Your task to perform on an android device: Clear all items from cart on ebay.com. Search for razer huntsman on ebay.com, select the first entry, add it to the cart, then select checkout. Image 0: 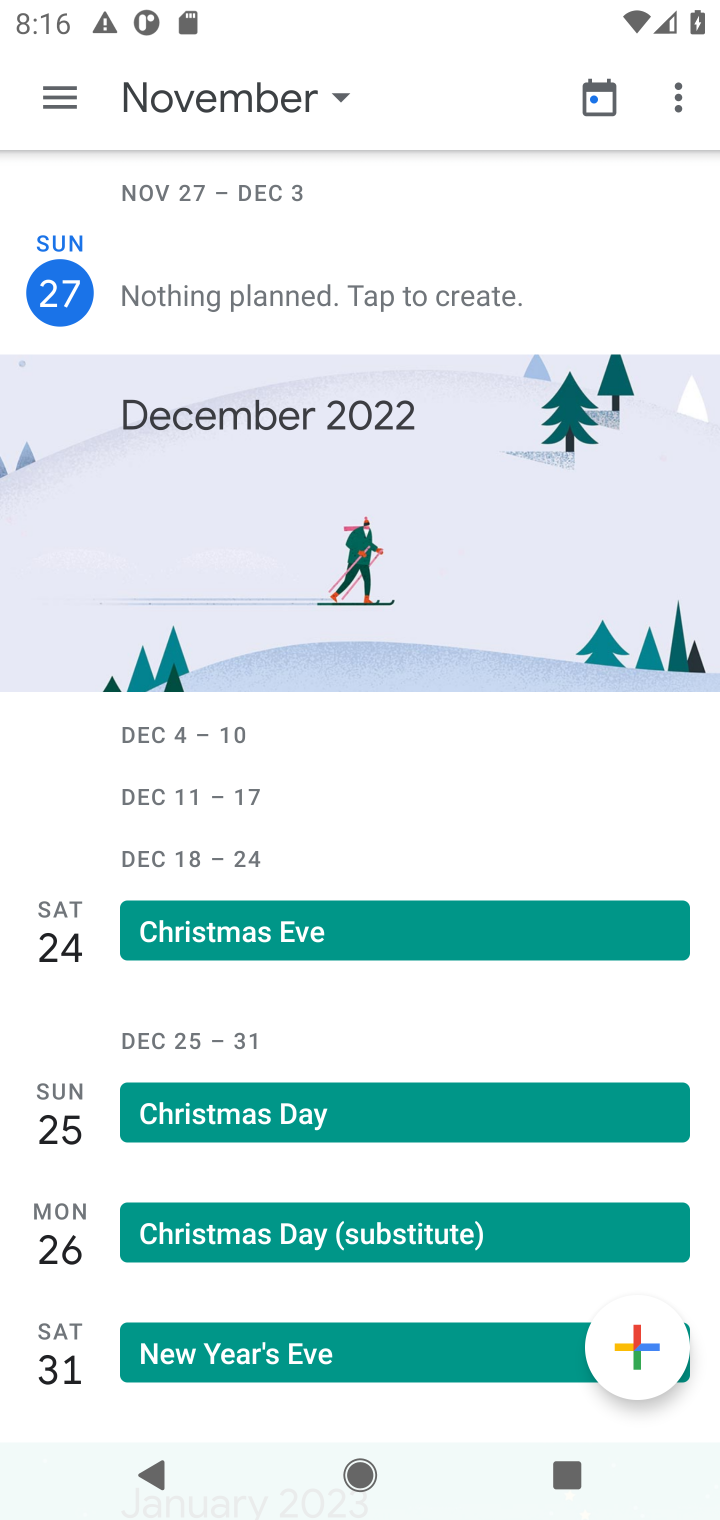
Step 0: press home button
Your task to perform on an android device: Clear all items from cart on ebay.com. Search for razer huntsman on ebay.com, select the first entry, add it to the cart, then select checkout. Image 1: 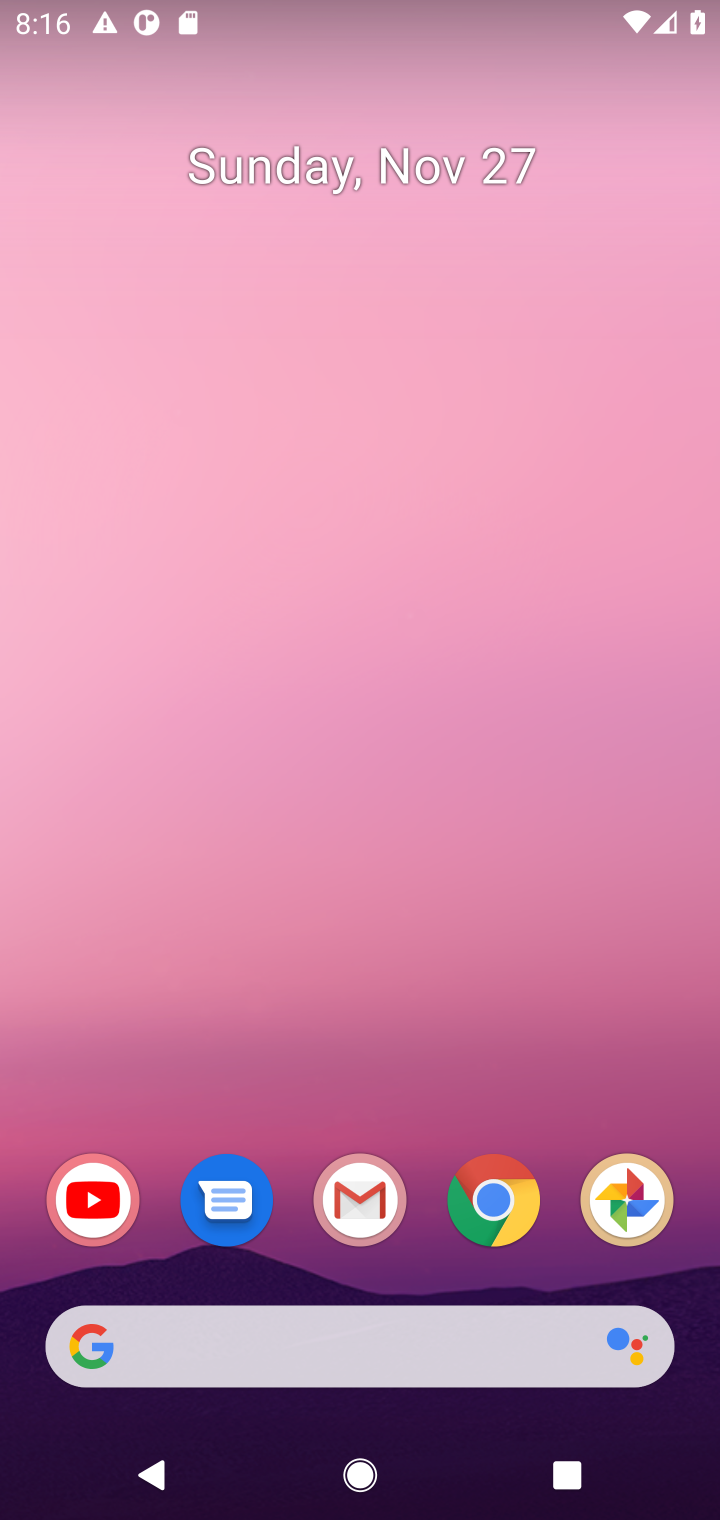
Step 1: click (485, 1210)
Your task to perform on an android device: Clear all items from cart on ebay.com. Search for razer huntsman on ebay.com, select the first entry, add it to the cart, then select checkout. Image 2: 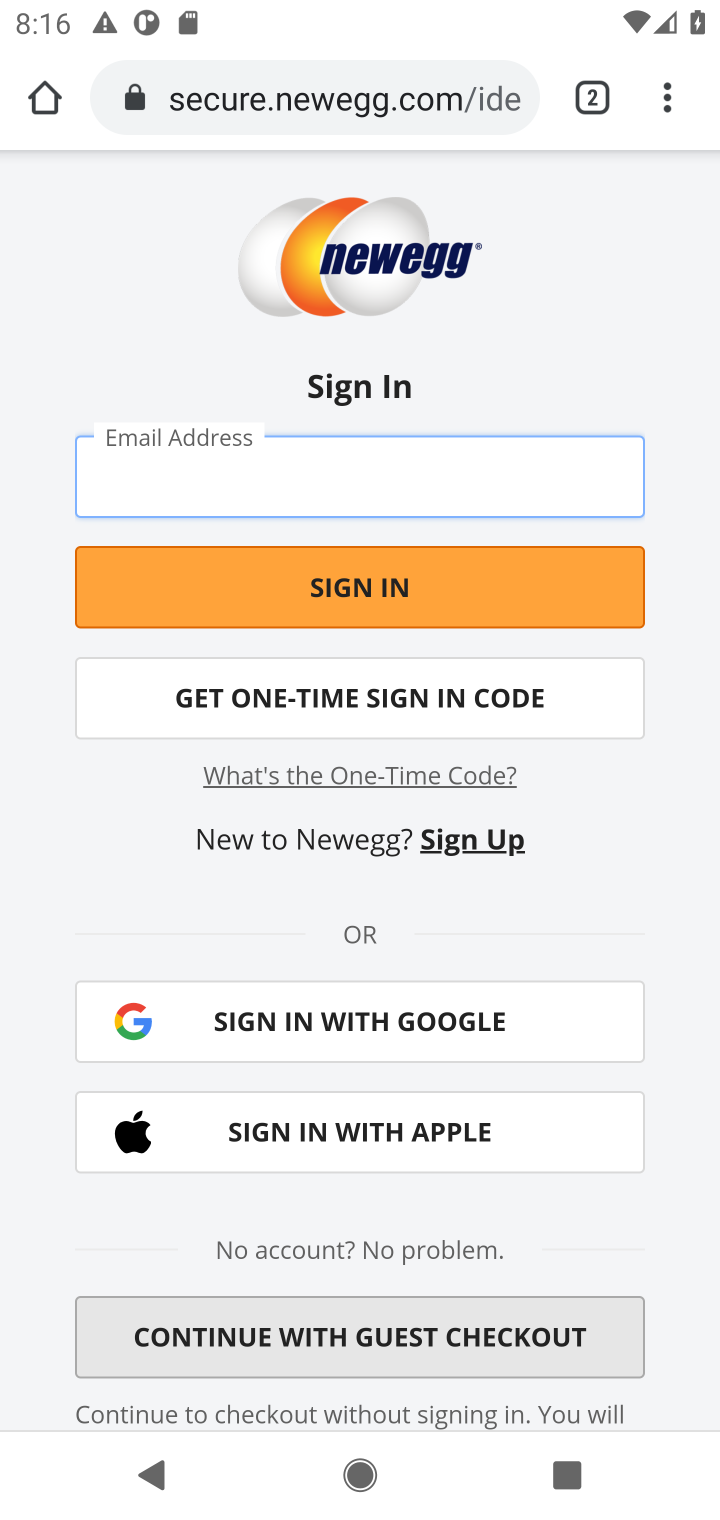
Step 2: click (311, 114)
Your task to perform on an android device: Clear all items from cart on ebay.com. Search for razer huntsman on ebay.com, select the first entry, add it to the cart, then select checkout. Image 3: 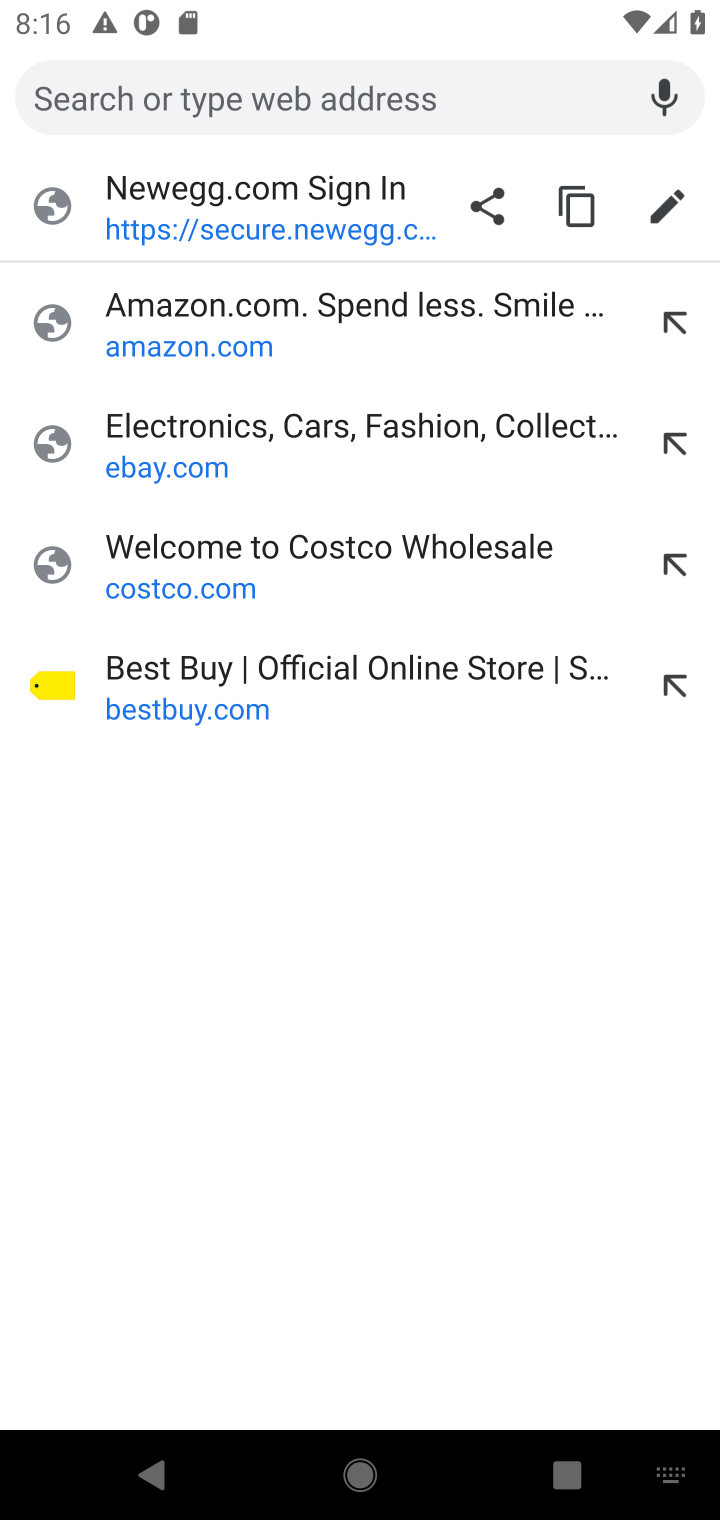
Step 3: click (132, 454)
Your task to perform on an android device: Clear all items from cart on ebay.com. Search for razer huntsman on ebay.com, select the first entry, add it to the cart, then select checkout. Image 4: 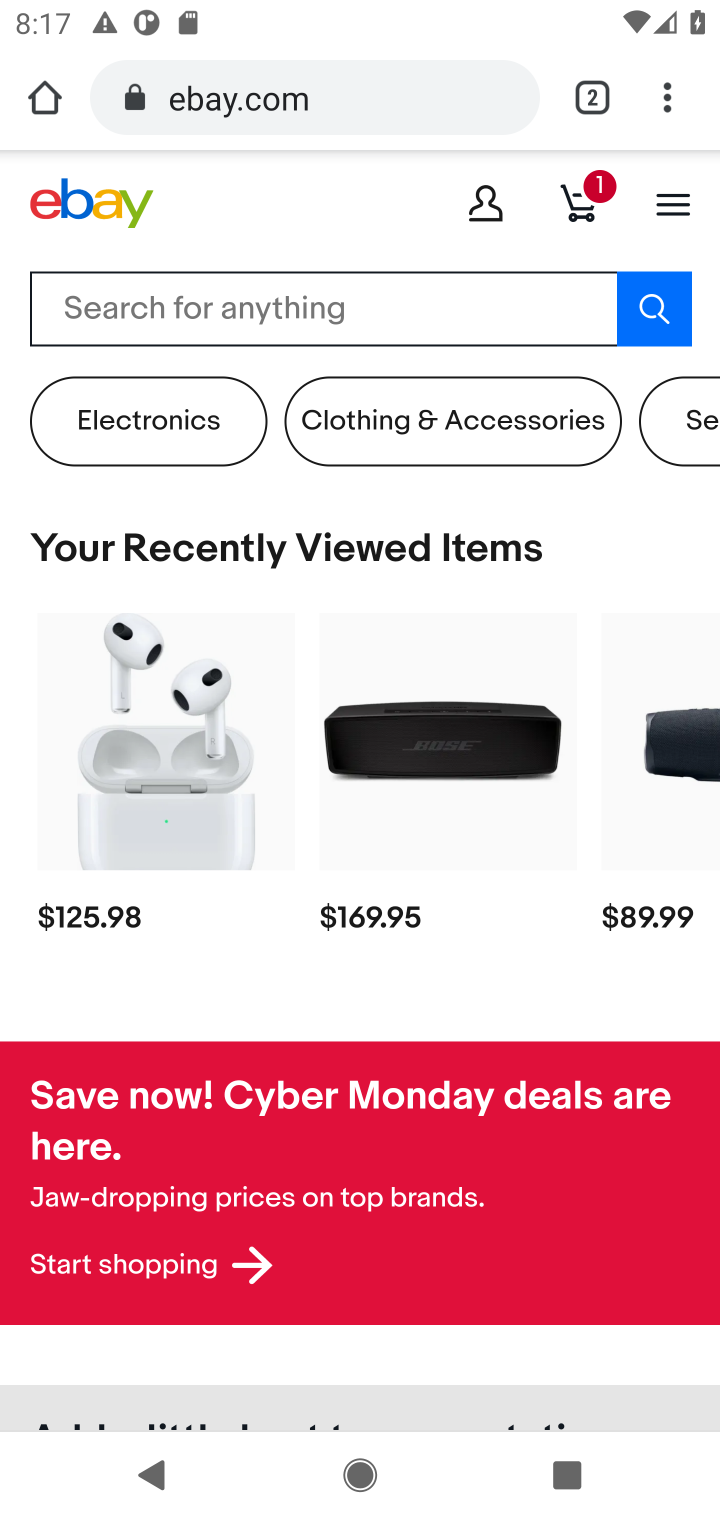
Step 4: click (572, 204)
Your task to perform on an android device: Clear all items from cart on ebay.com. Search for razer huntsman on ebay.com, select the first entry, add it to the cart, then select checkout. Image 5: 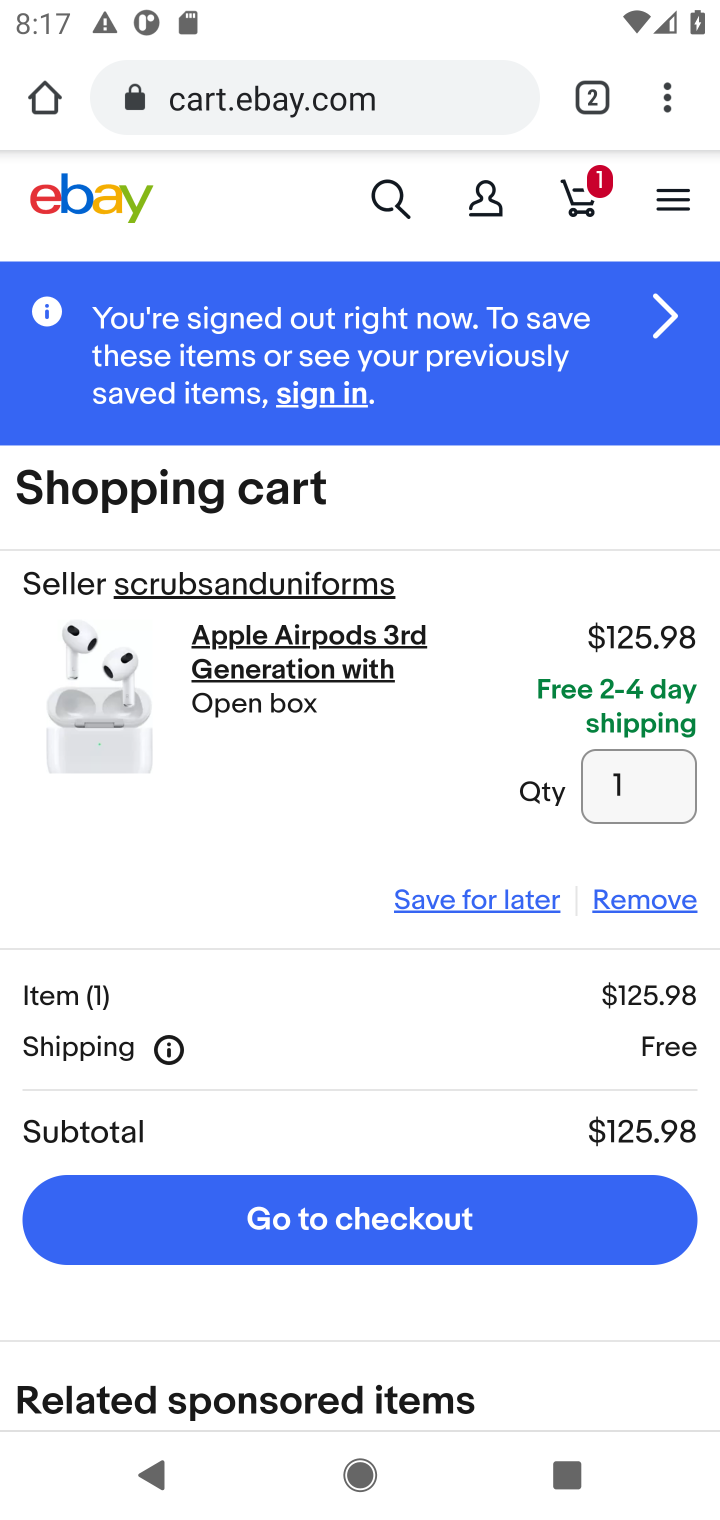
Step 5: click (619, 896)
Your task to perform on an android device: Clear all items from cart on ebay.com. Search for razer huntsman on ebay.com, select the first entry, add it to the cart, then select checkout. Image 6: 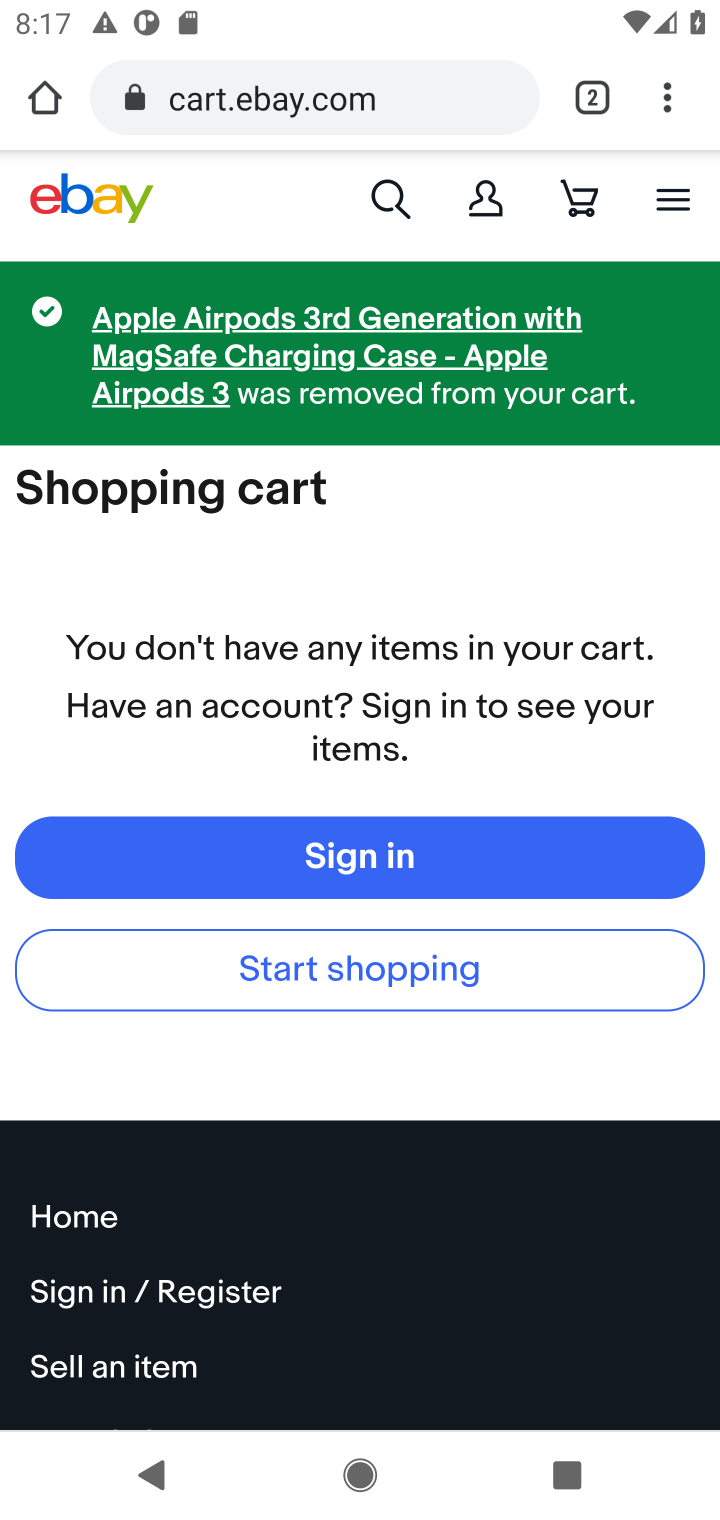
Step 6: click (374, 196)
Your task to perform on an android device: Clear all items from cart on ebay.com. Search for razer huntsman on ebay.com, select the first entry, add it to the cart, then select checkout. Image 7: 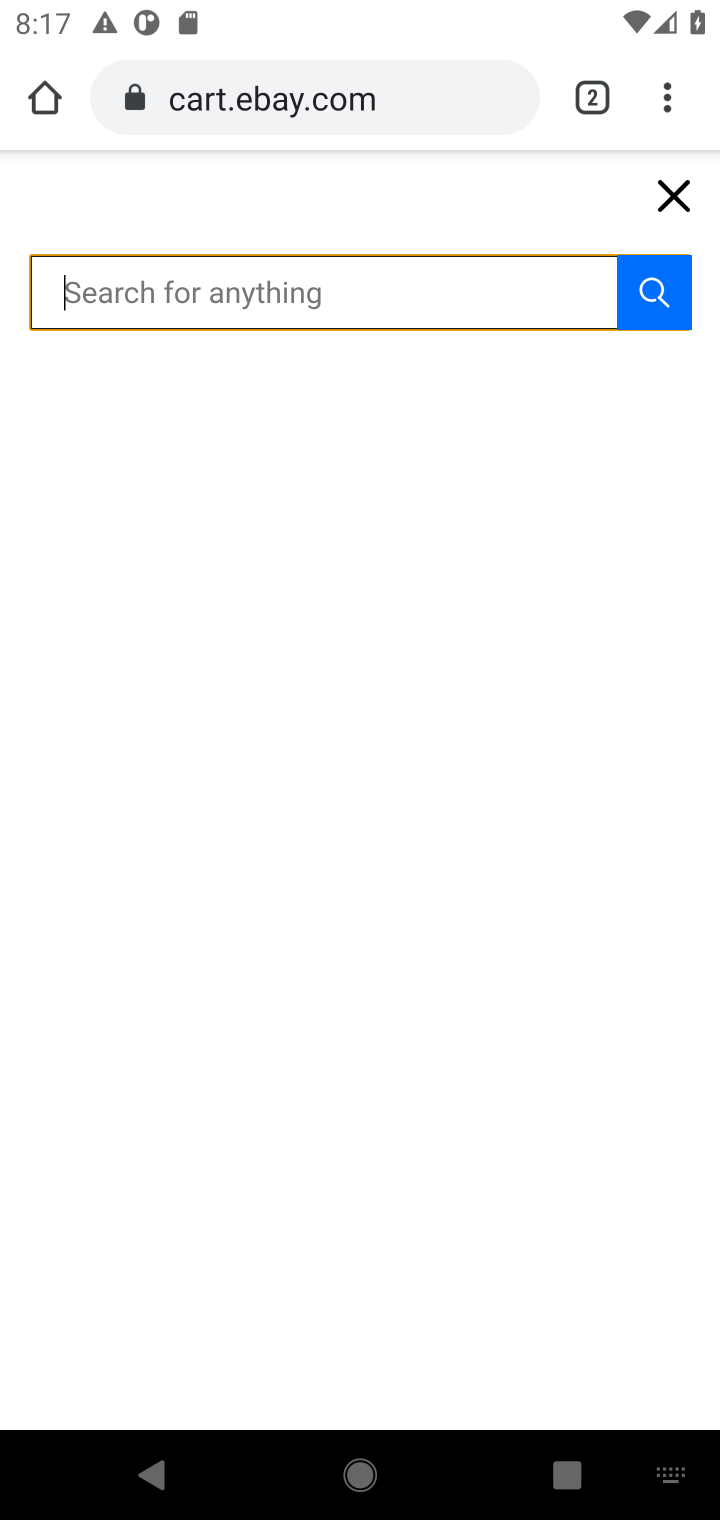
Step 7: type "razer huntsman"
Your task to perform on an android device: Clear all items from cart on ebay.com. Search for razer huntsman on ebay.com, select the first entry, add it to the cart, then select checkout. Image 8: 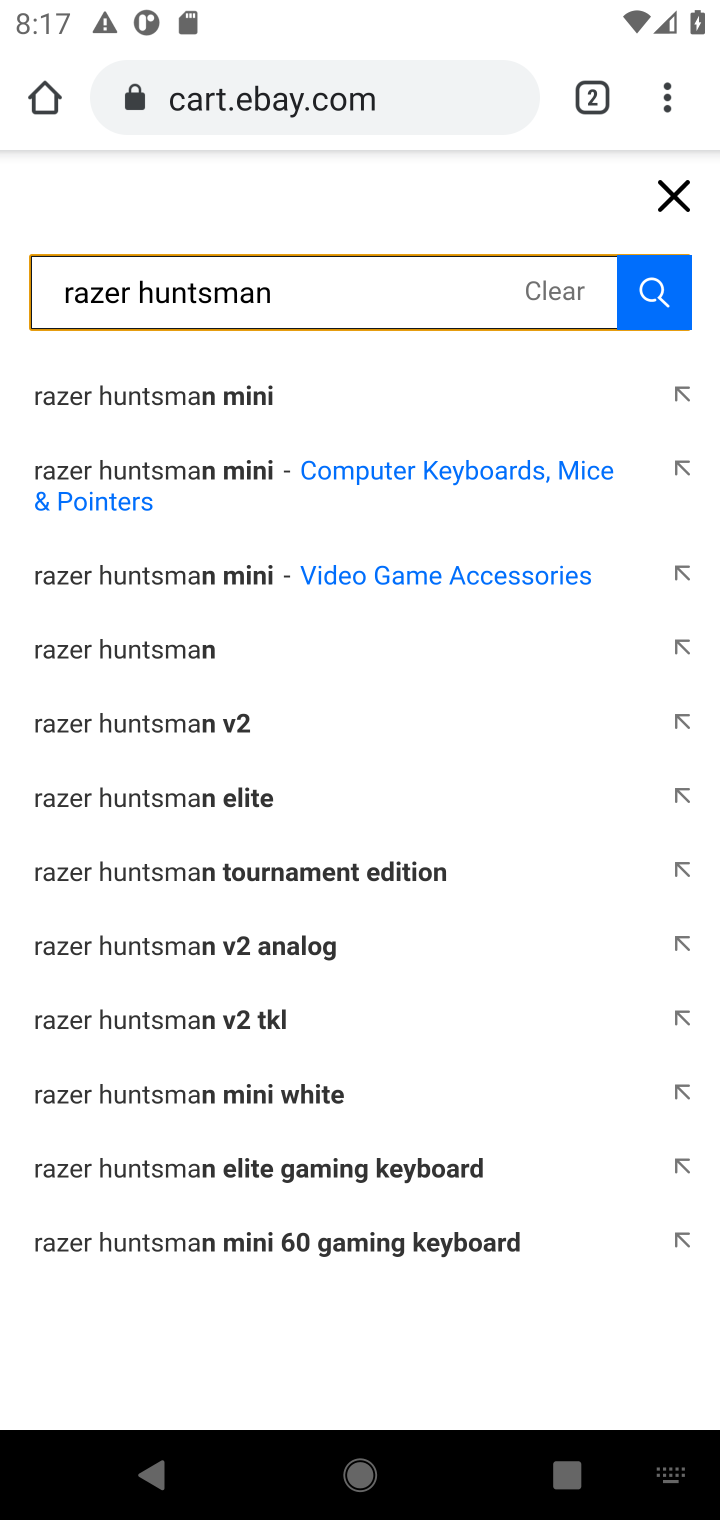
Step 8: click (117, 650)
Your task to perform on an android device: Clear all items from cart on ebay.com. Search for razer huntsman on ebay.com, select the first entry, add it to the cart, then select checkout. Image 9: 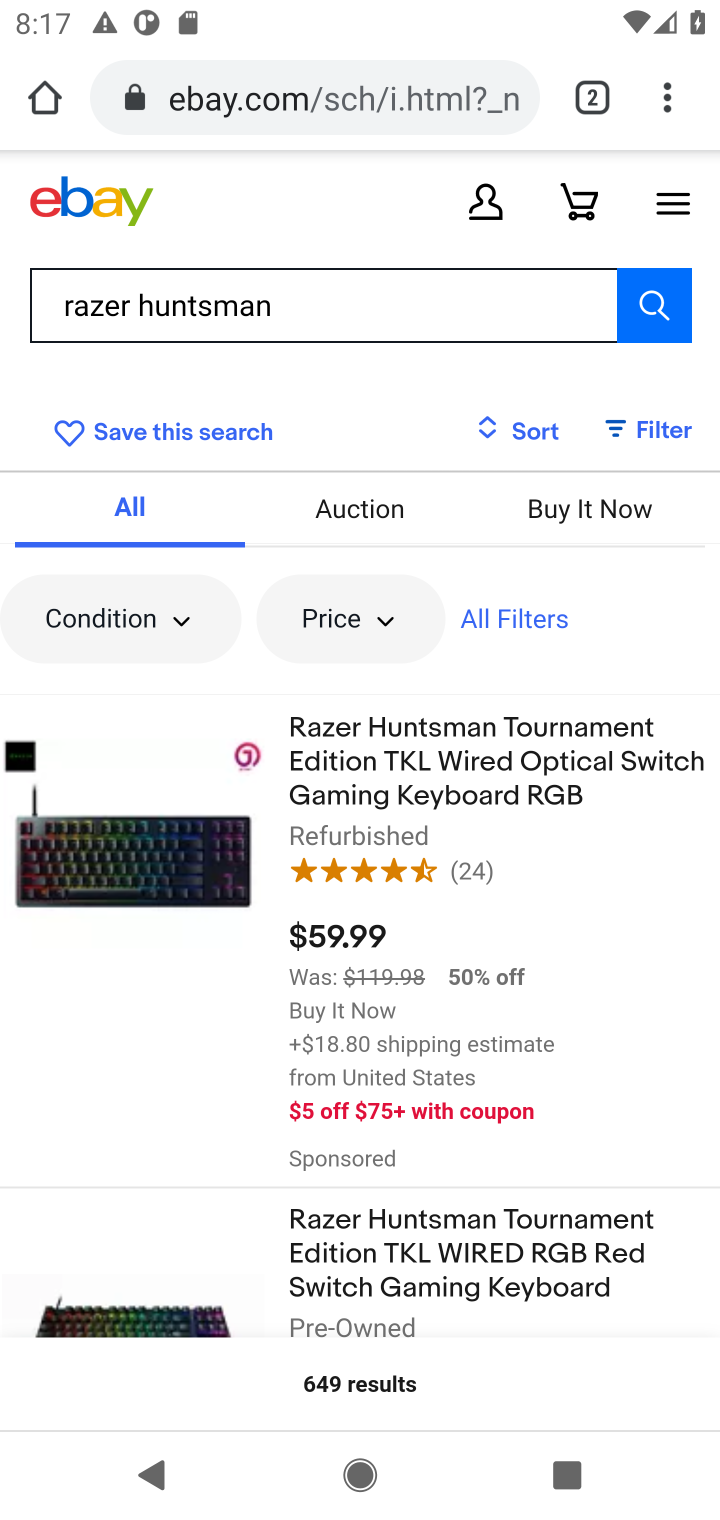
Step 9: click (429, 780)
Your task to perform on an android device: Clear all items from cart on ebay.com. Search for razer huntsman on ebay.com, select the first entry, add it to the cart, then select checkout. Image 10: 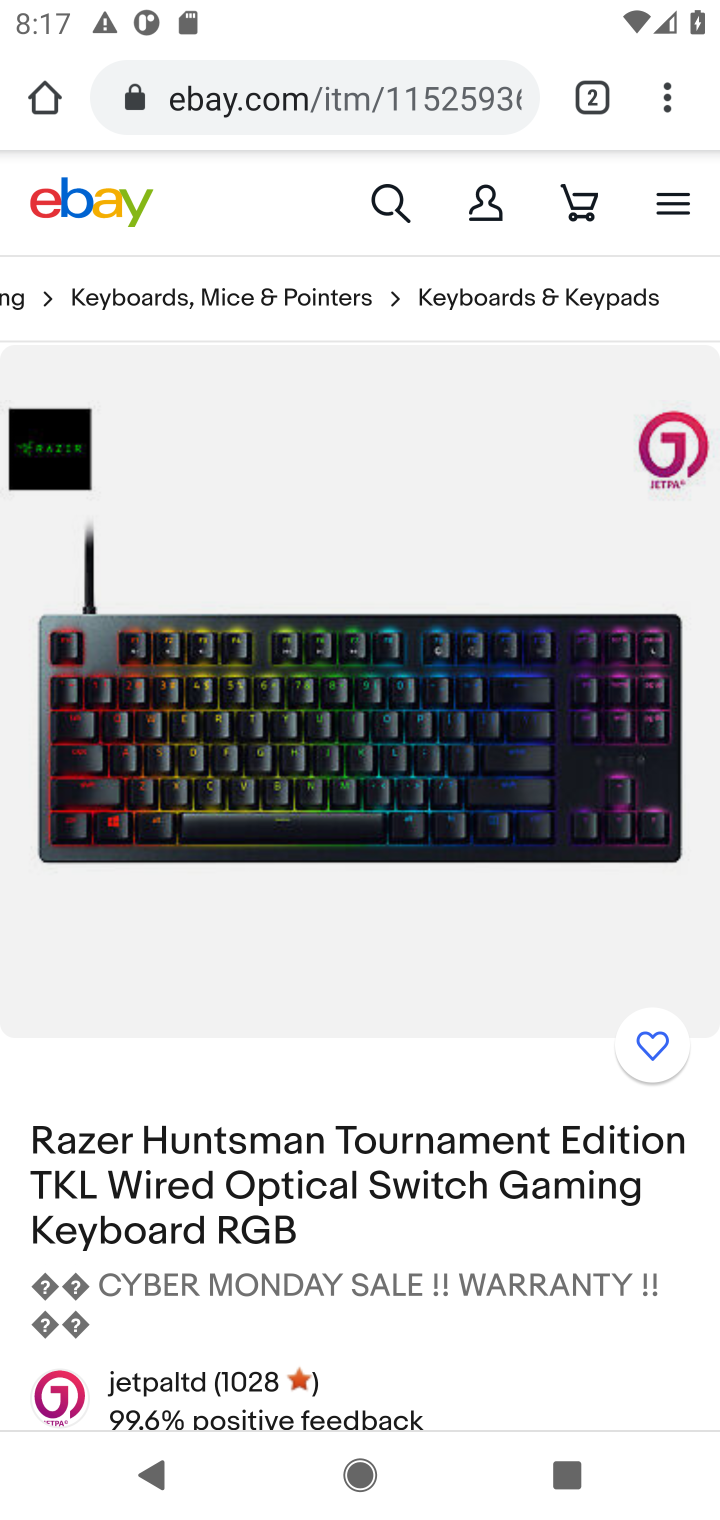
Step 10: drag from (352, 1127) to (410, 304)
Your task to perform on an android device: Clear all items from cart on ebay.com. Search for razer huntsman on ebay.com, select the first entry, add it to the cart, then select checkout. Image 11: 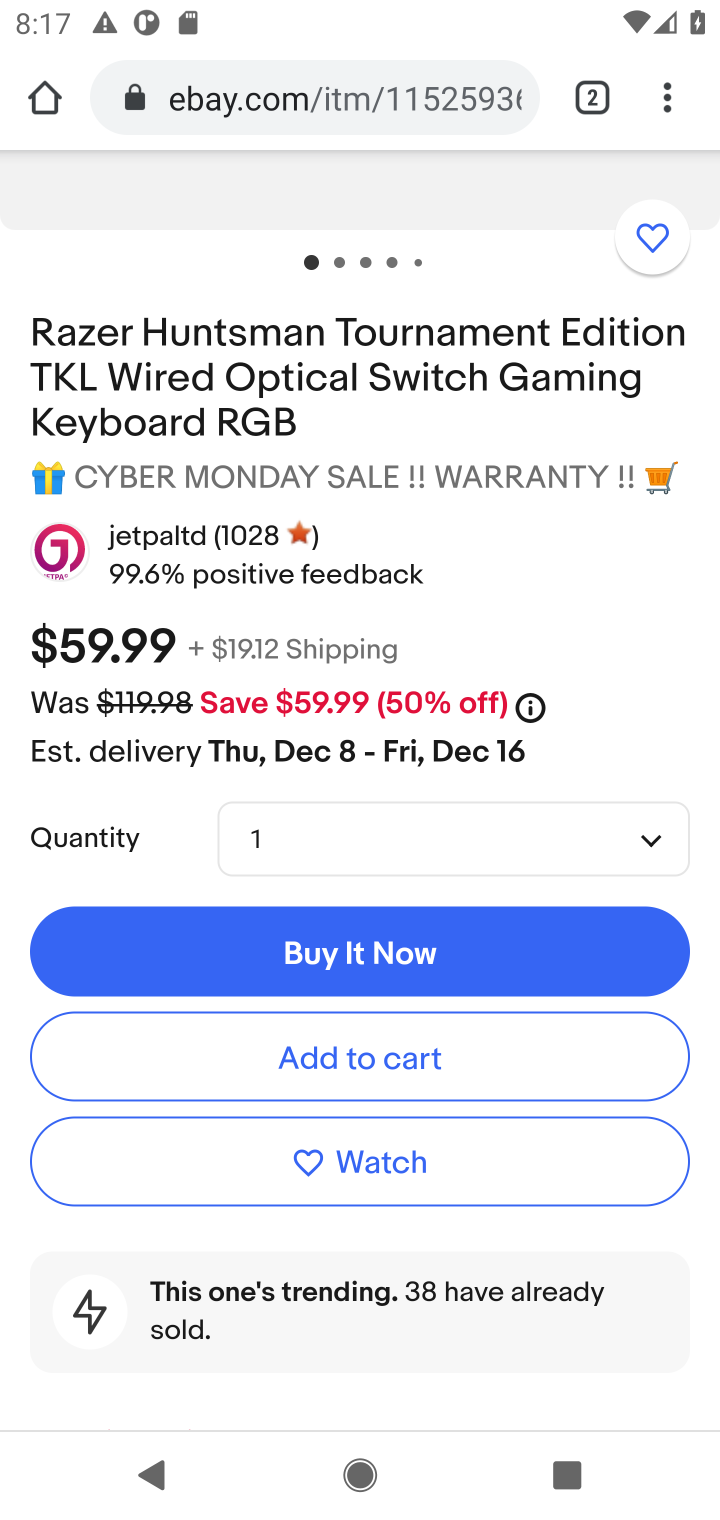
Step 11: click (271, 1057)
Your task to perform on an android device: Clear all items from cart on ebay.com. Search for razer huntsman on ebay.com, select the first entry, add it to the cart, then select checkout. Image 12: 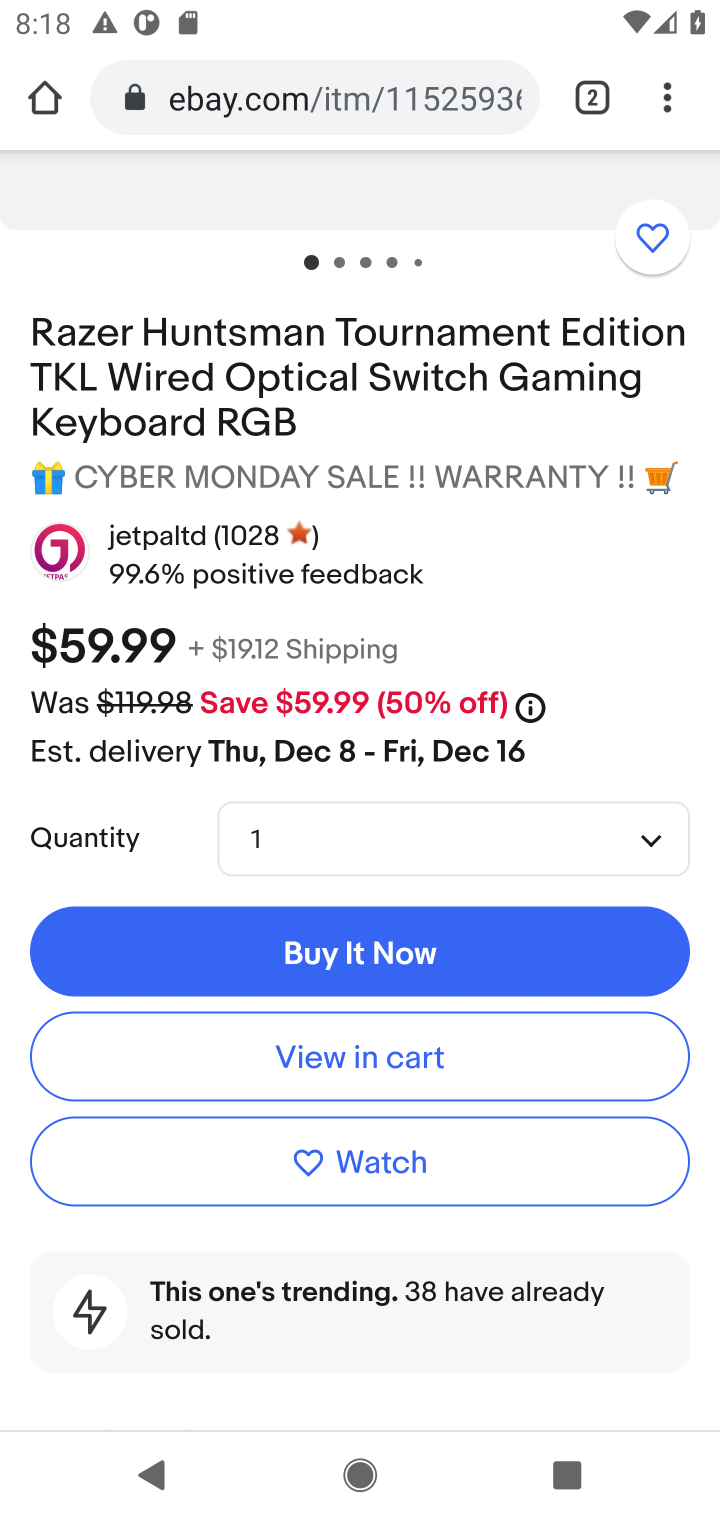
Step 12: click (277, 1057)
Your task to perform on an android device: Clear all items from cart on ebay.com. Search for razer huntsman on ebay.com, select the first entry, add it to the cart, then select checkout. Image 13: 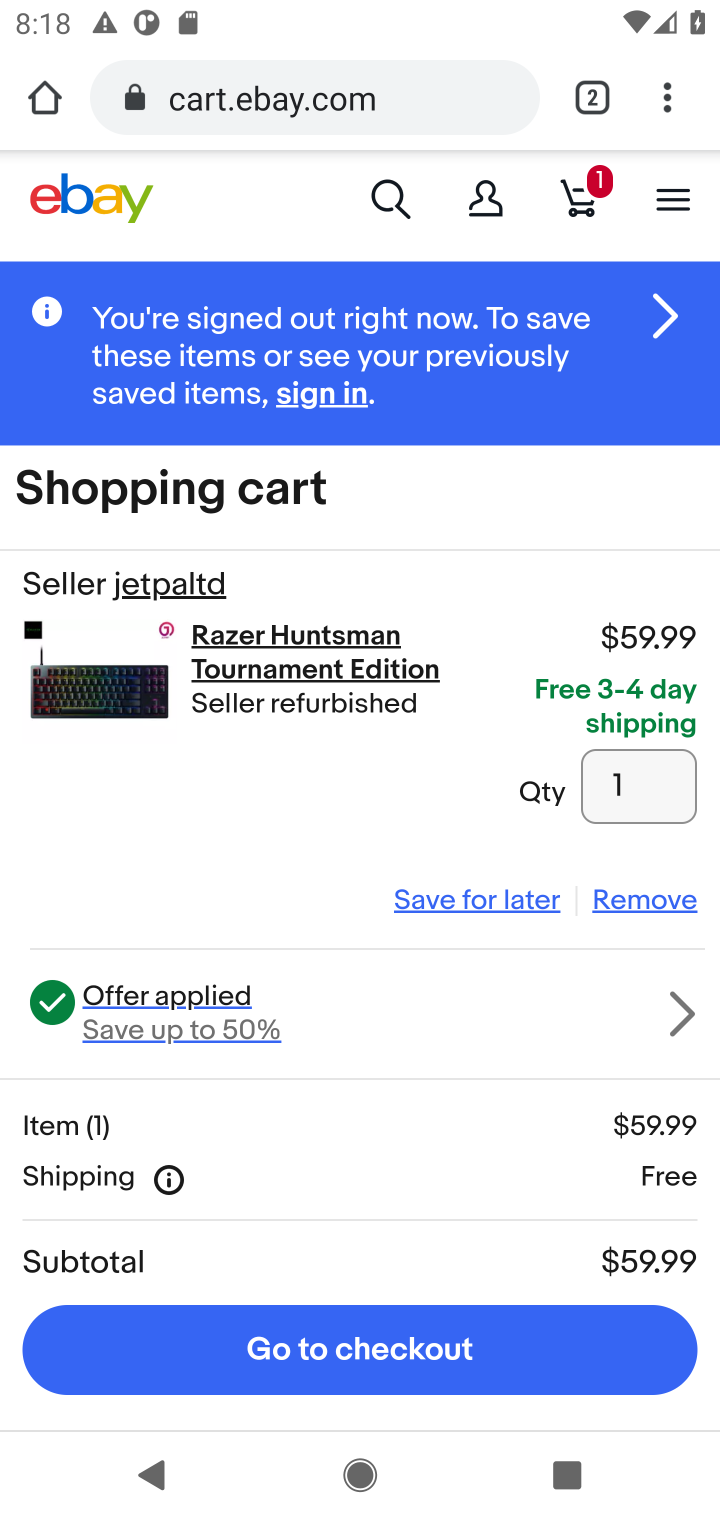
Step 13: click (311, 1410)
Your task to perform on an android device: Clear all items from cart on ebay.com. Search for razer huntsman on ebay.com, select the first entry, add it to the cart, then select checkout. Image 14: 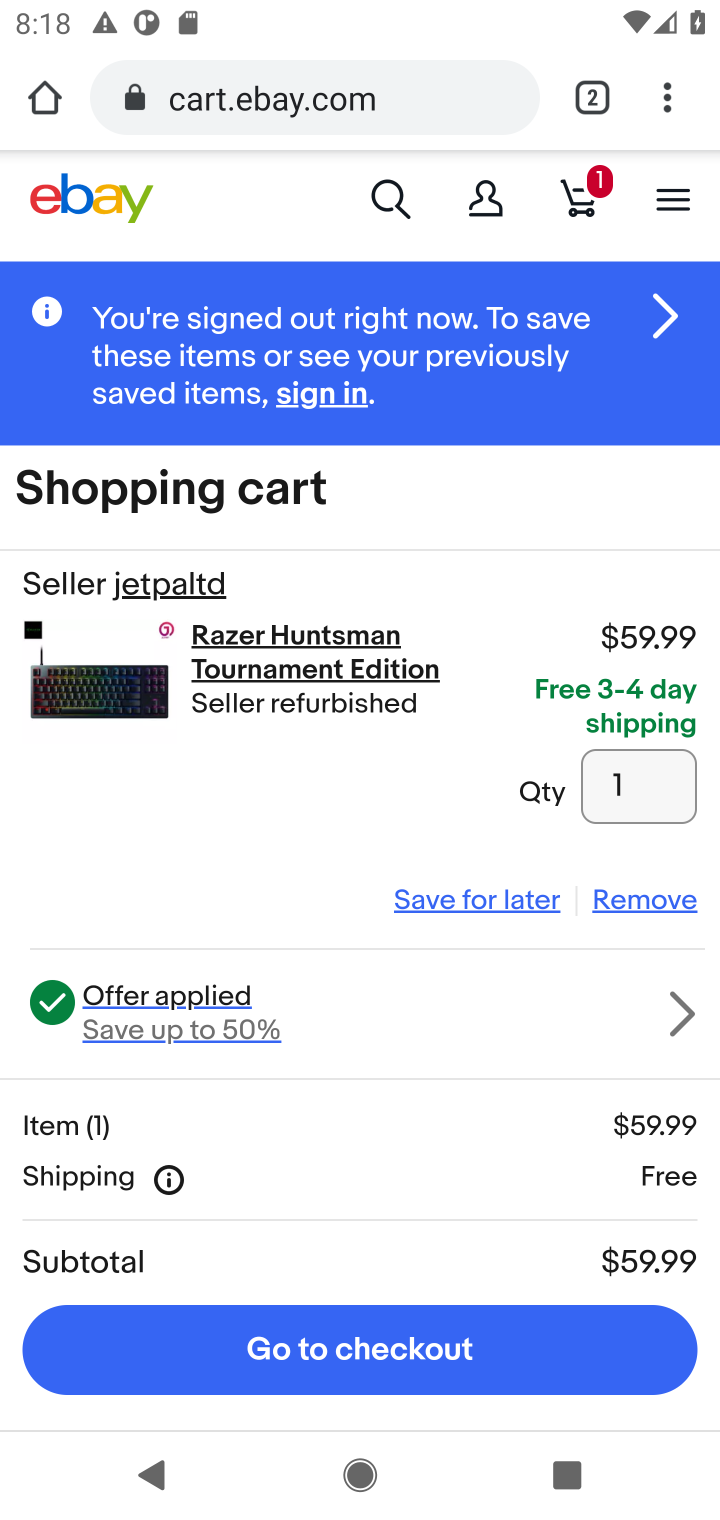
Step 14: click (298, 1356)
Your task to perform on an android device: Clear all items from cart on ebay.com. Search for razer huntsman on ebay.com, select the first entry, add it to the cart, then select checkout. Image 15: 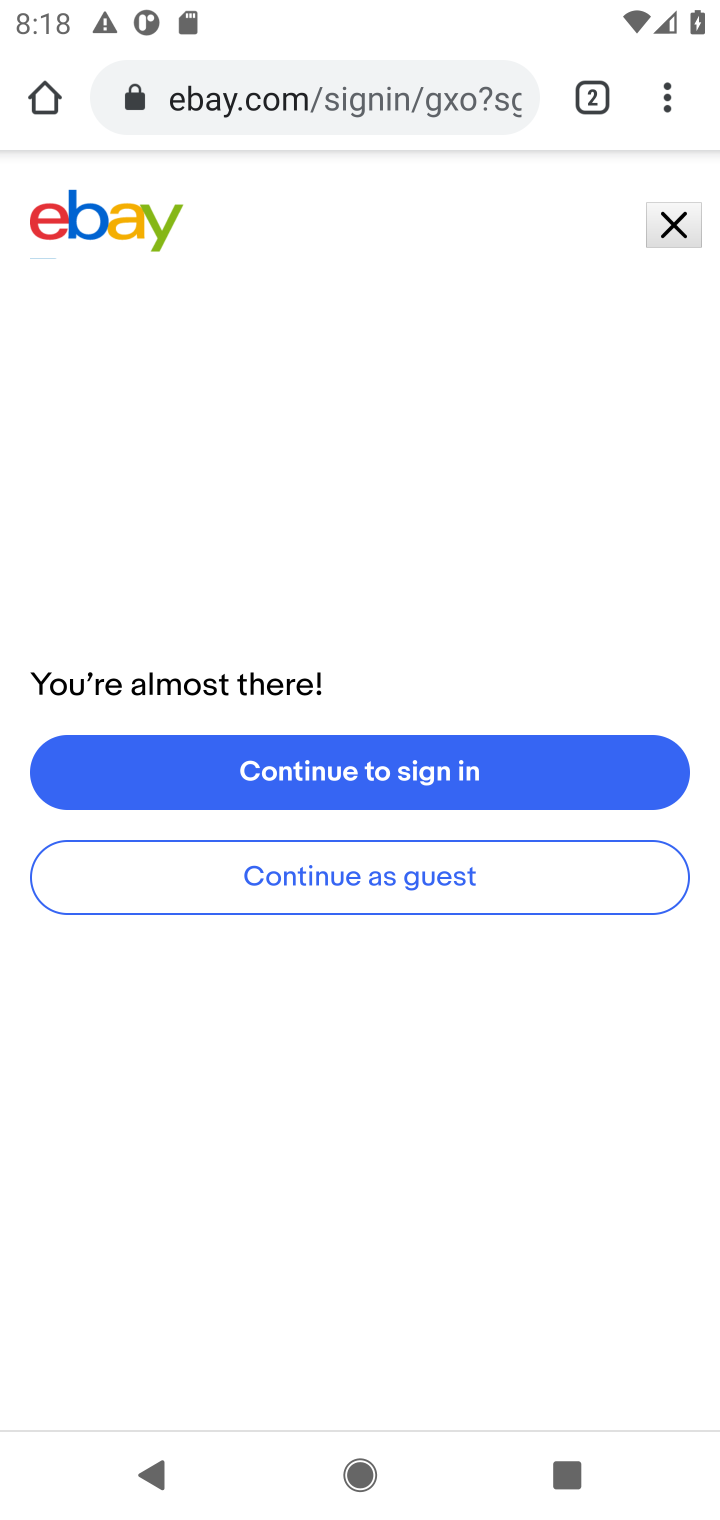
Step 15: task complete